Your task to perform on an android device: Open notification settings Image 0: 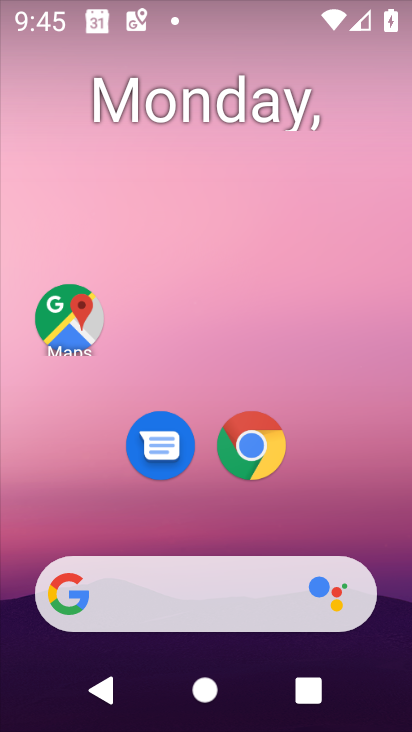
Step 0: drag from (268, 625) to (363, 13)
Your task to perform on an android device: Open notification settings Image 1: 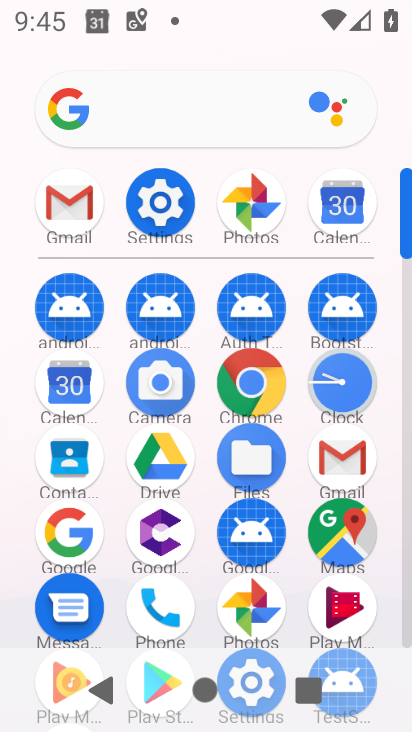
Step 1: click (167, 187)
Your task to perform on an android device: Open notification settings Image 2: 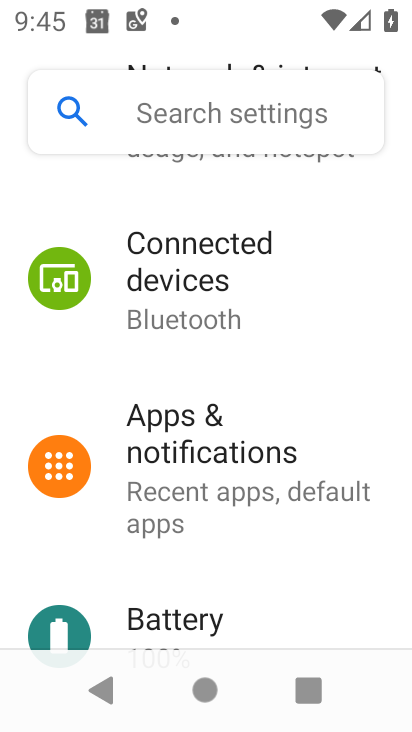
Step 2: click (277, 450)
Your task to perform on an android device: Open notification settings Image 3: 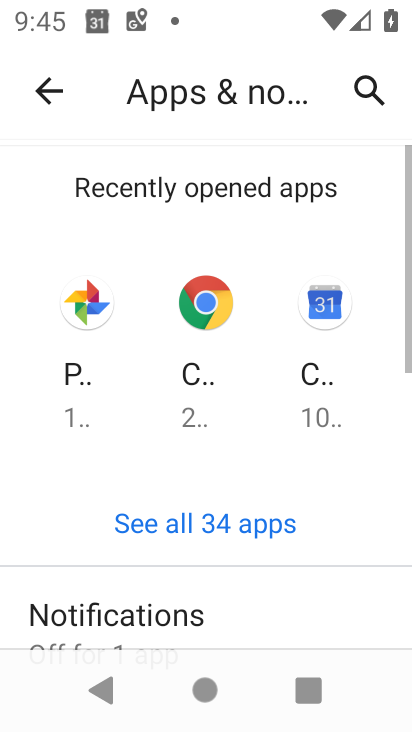
Step 3: task complete